Your task to perform on an android device: Find coffee shops on Maps Image 0: 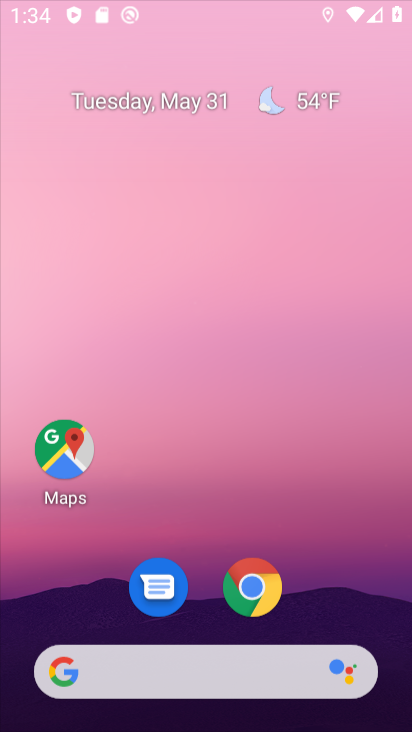
Step 0: click (300, 142)
Your task to perform on an android device: Find coffee shops on Maps Image 1: 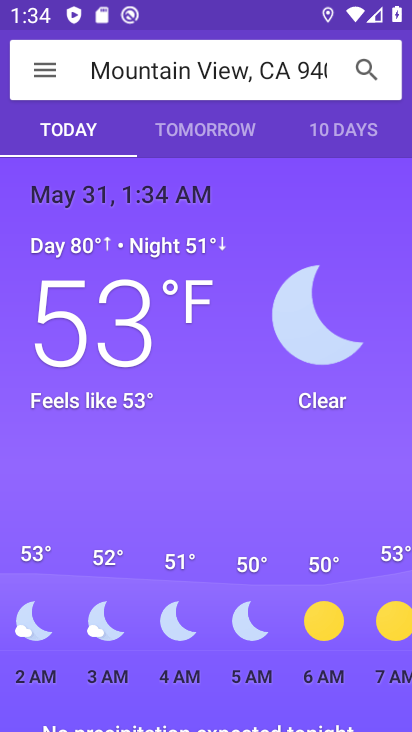
Step 1: drag from (218, 548) to (287, 151)
Your task to perform on an android device: Find coffee shops on Maps Image 2: 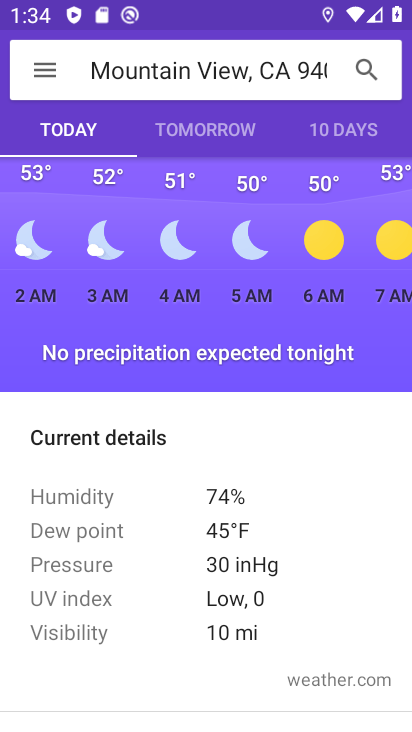
Step 2: drag from (230, 638) to (253, 307)
Your task to perform on an android device: Find coffee shops on Maps Image 3: 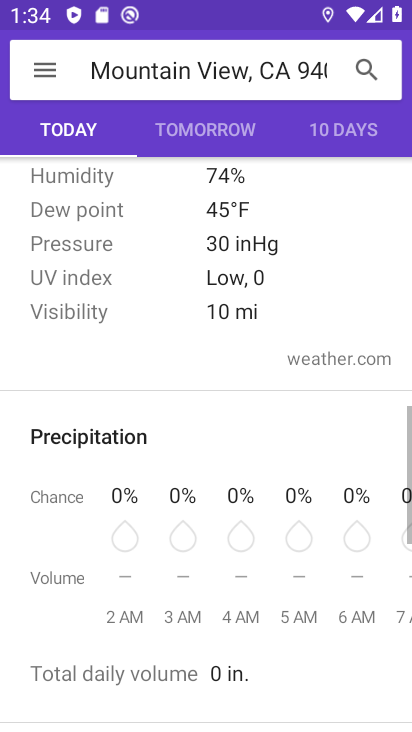
Step 3: drag from (232, 283) to (293, 729)
Your task to perform on an android device: Find coffee shops on Maps Image 4: 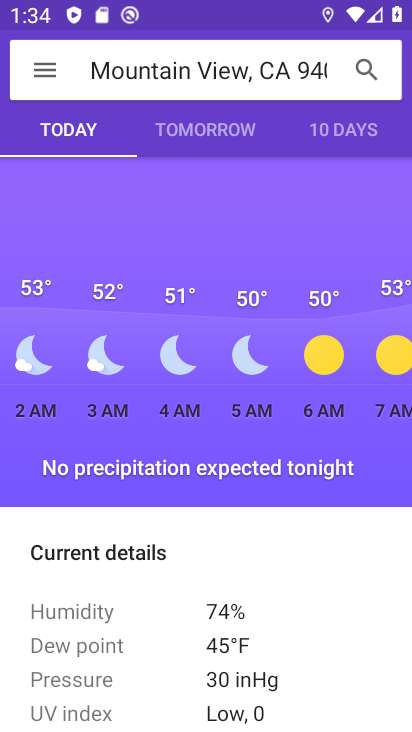
Step 4: drag from (165, 651) to (238, 418)
Your task to perform on an android device: Find coffee shops on Maps Image 5: 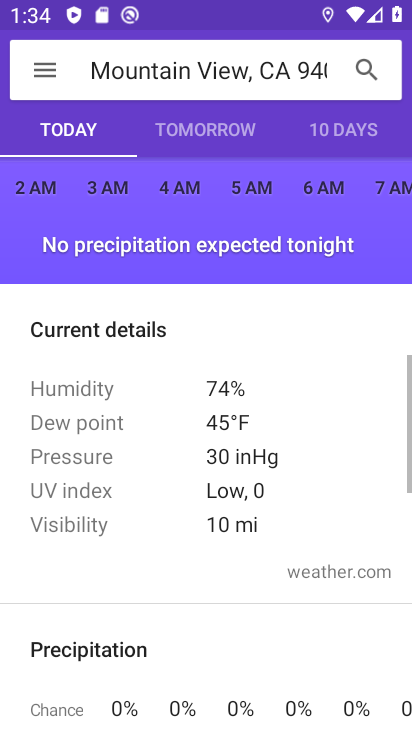
Step 5: drag from (249, 367) to (270, 683)
Your task to perform on an android device: Find coffee shops on Maps Image 6: 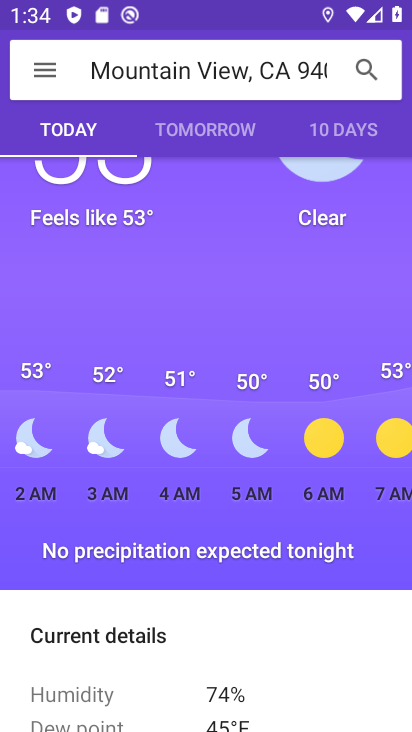
Step 6: press home button
Your task to perform on an android device: Find coffee shops on Maps Image 7: 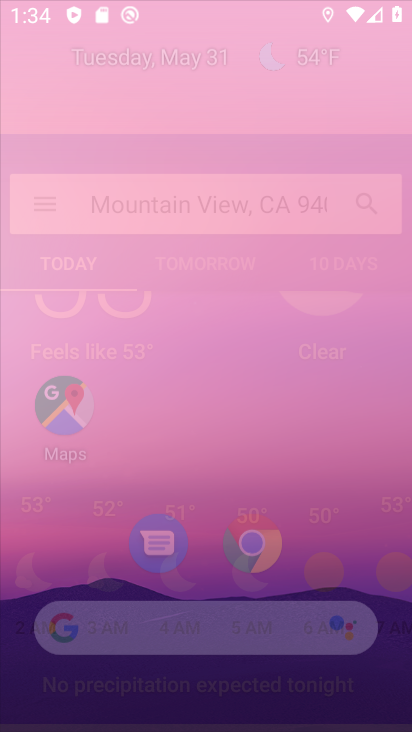
Step 7: drag from (162, 536) to (227, 72)
Your task to perform on an android device: Find coffee shops on Maps Image 8: 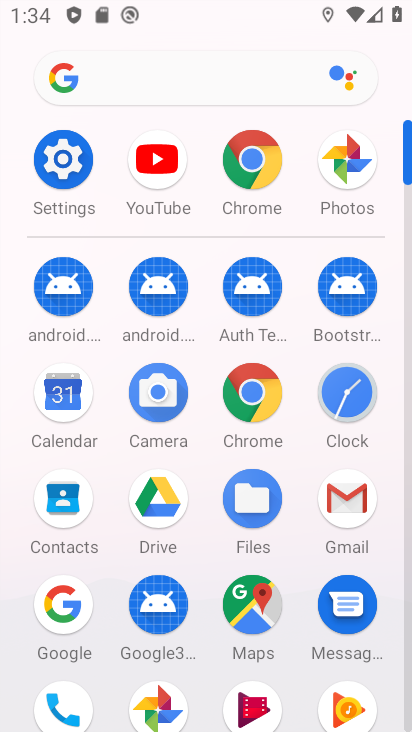
Step 8: click (249, 593)
Your task to perform on an android device: Find coffee shops on Maps Image 9: 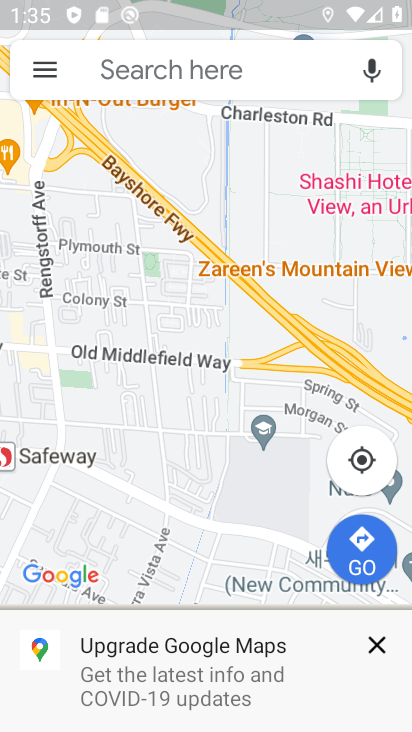
Step 9: click (42, 63)
Your task to perform on an android device: Find coffee shops on Maps Image 10: 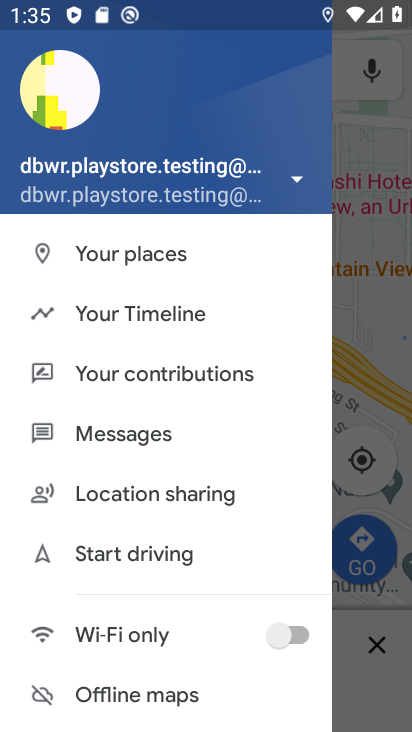
Step 10: drag from (117, 673) to (170, 286)
Your task to perform on an android device: Find coffee shops on Maps Image 11: 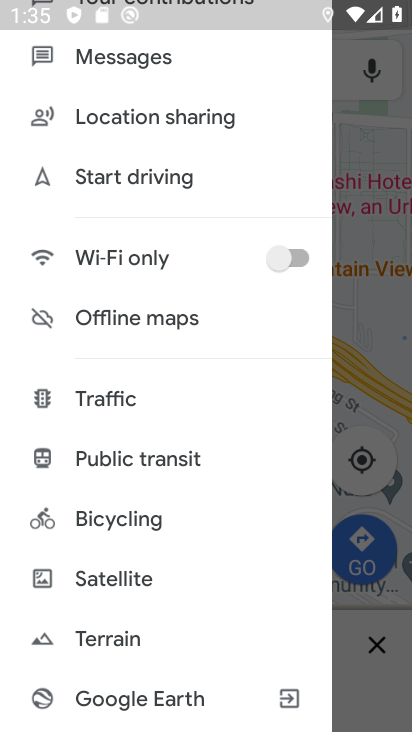
Step 11: press back button
Your task to perform on an android device: Find coffee shops on Maps Image 12: 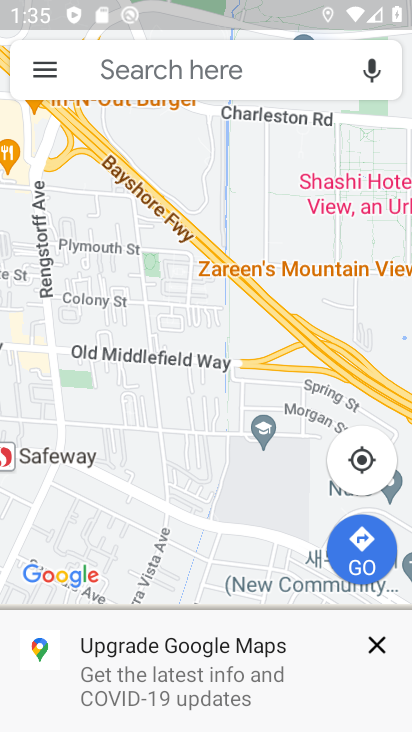
Step 12: click (132, 76)
Your task to perform on an android device: Find coffee shops on Maps Image 13: 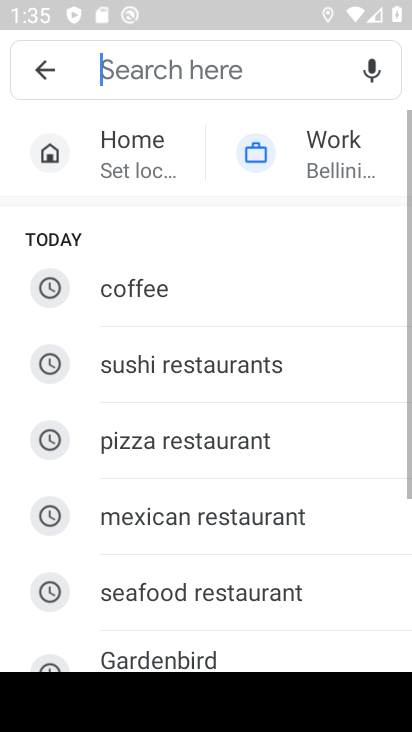
Step 13: click (133, 272)
Your task to perform on an android device: Find coffee shops on Maps Image 14: 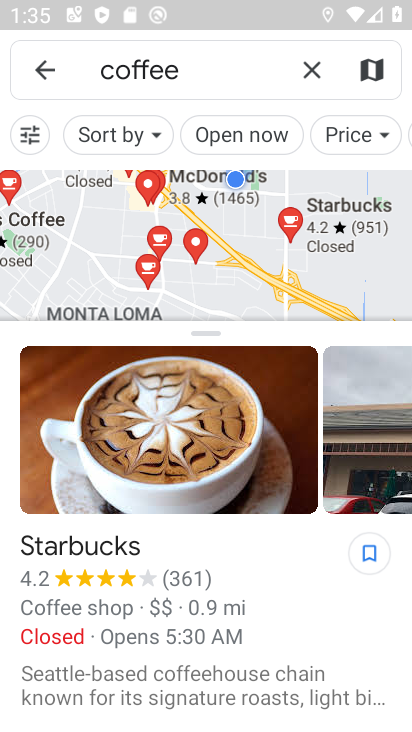
Step 14: task complete